Your task to perform on an android device: change notification settings in the gmail app Image 0: 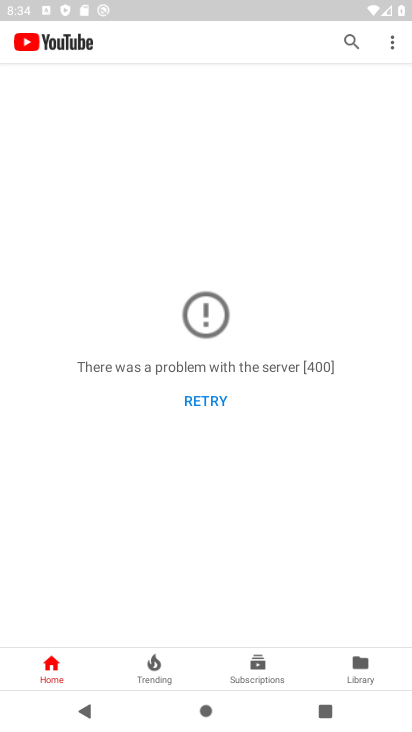
Step 0: press home button
Your task to perform on an android device: change notification settings in the gmail app Image 1: 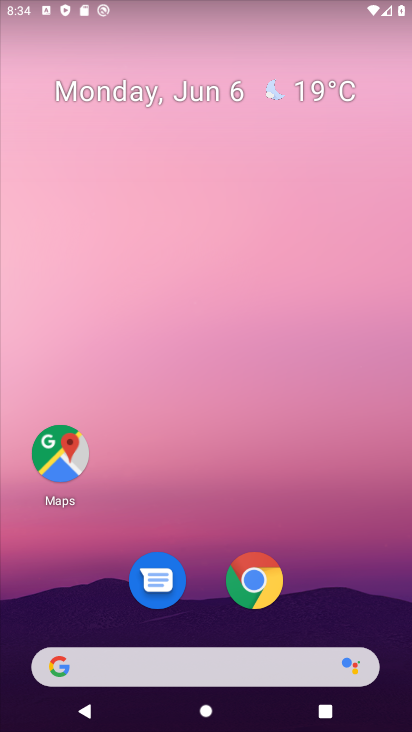
Step 1: drag from (281, 696) to (368, 71)
Your task to perform on an android device: change notification settings in the gmail app Image 2: 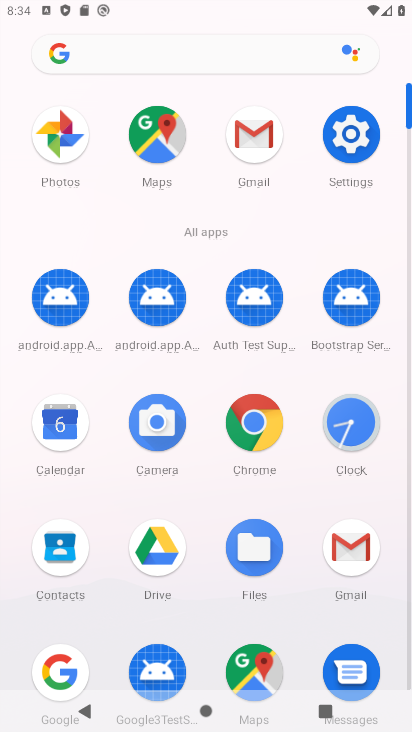
Step 2: click (361, 532)
Your task to perform on an android device: change notification settings in the gmail app Image 3: 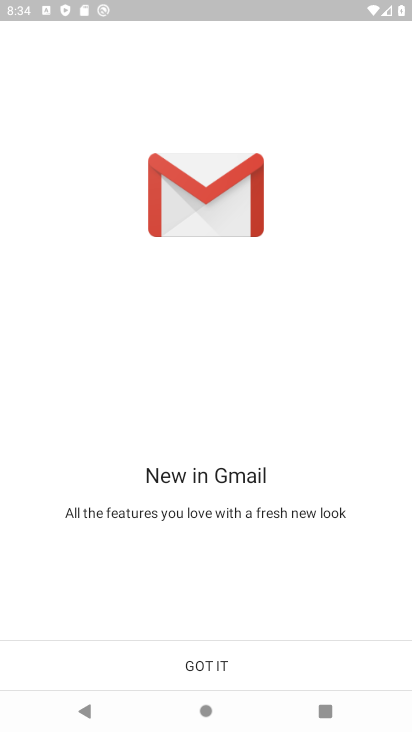
Step 3: click (280, 664)
Your task to perform on an android device: change notification settings in the gmail app Image 4: 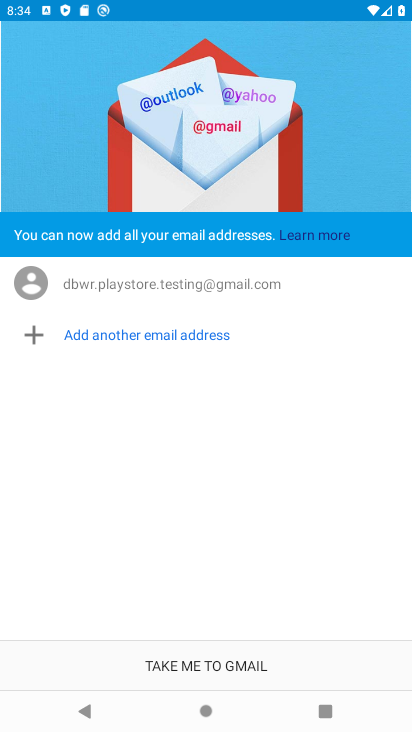
Step 4: click (280, 664)
Your task to perform on an android device: change notification settings in the gmail app Image 5: 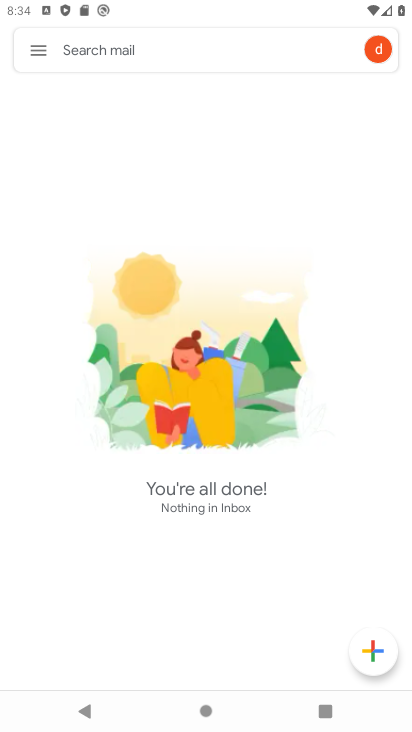
Step 5: click (41, 50)
Your task to perform on an android device: change notification settings in the gmail app Image 6: 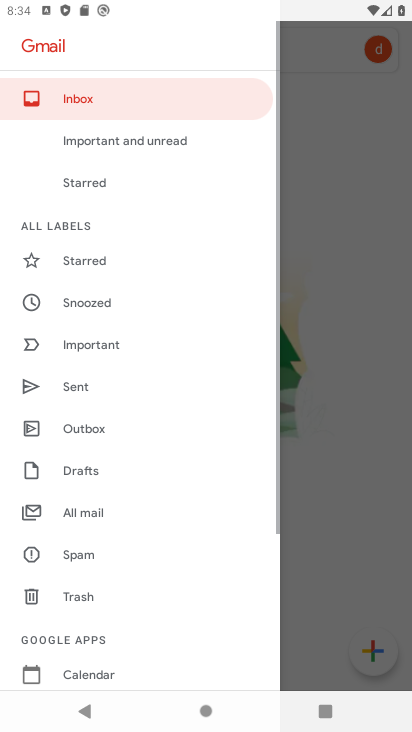
Step 6: drag from (96, 628) to (112, 131)
Your task to perform on an android device: change notification settings in the gmail app Image 7: 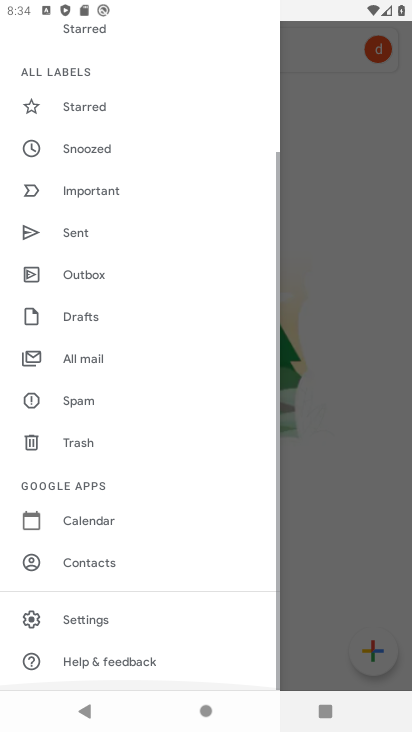
Step 7: click (88, 618)
Your task to perform on an android device: change notification settings in the gmail app Image 8: 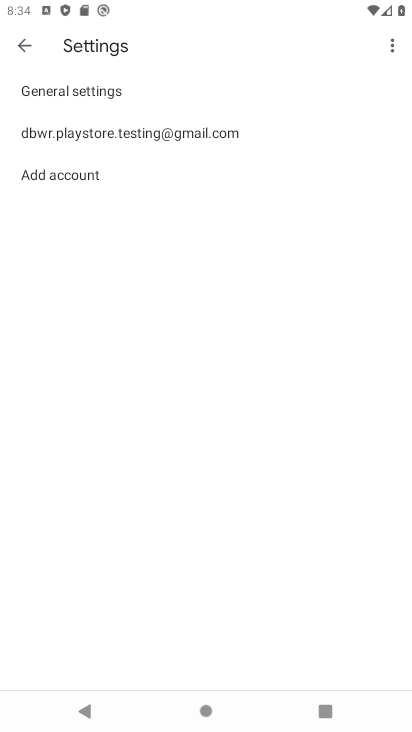
Step 8: click (201, 124)
Your task to perform on an android device: change notification settings in the gmail app Image 9: 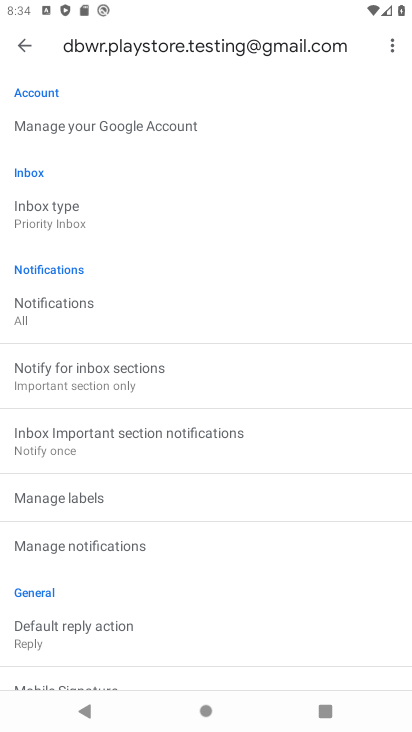
Step 9: click (168, 533)
Your task to perform on an android device: change notification settings in the gmail app Image 10: 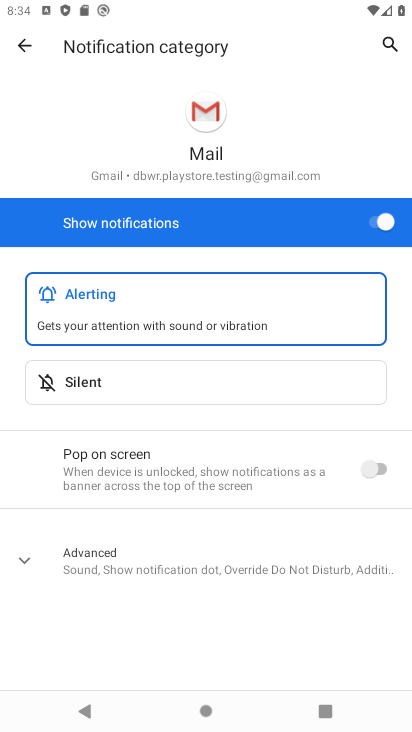
Step 10: click (131, 562)
Your task to perform on an android device: change notification settings in the gmail app Image 11: 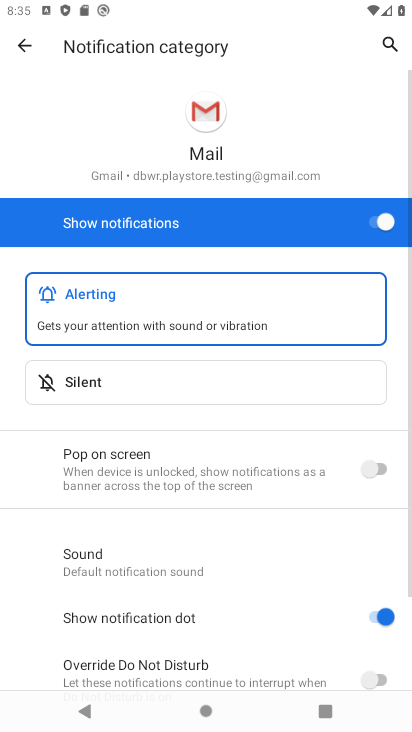
Step 11: drag from (134, 618) to (198, 294)
Your task to perform on an android device: change notification settings in the gmail app Image 12: 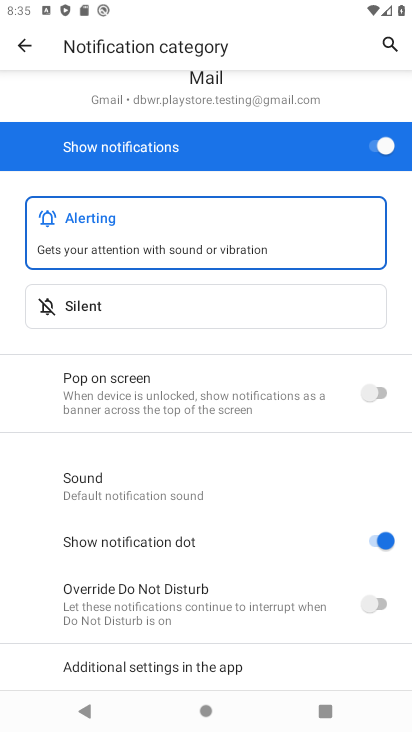
Step 12: drag from (166, 450) to (170, 691)
Your task to perform on an android device: change notification settings in the gmail app Image 13: 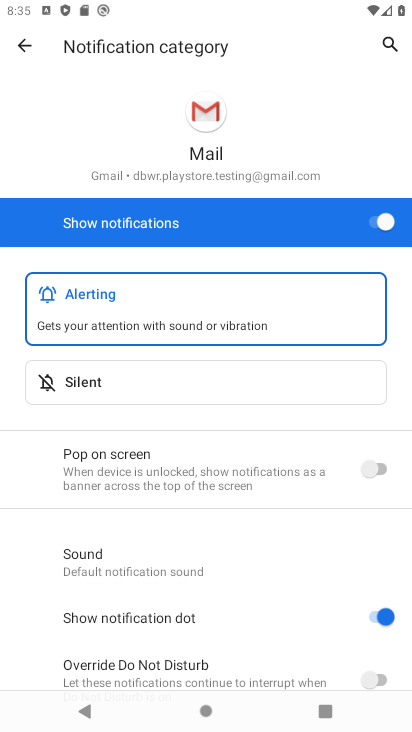
Step 13: press back button
Your task to perform on an android device: change notification settings in the gmail app Image 14: 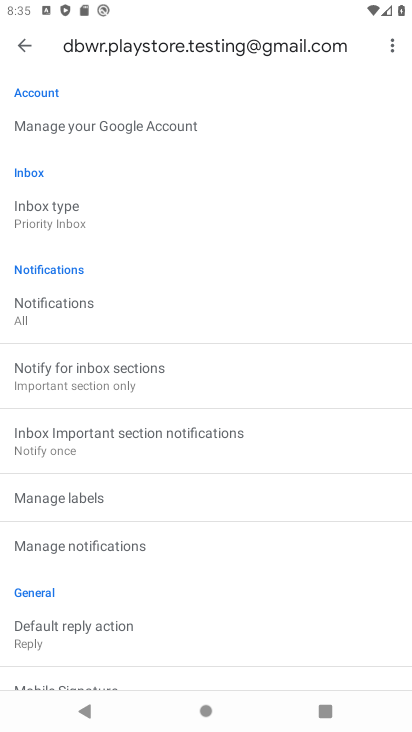
Step 14: click (165, 543)
Your task to perform on an android device: change notification settings in the gmail app Image 15: 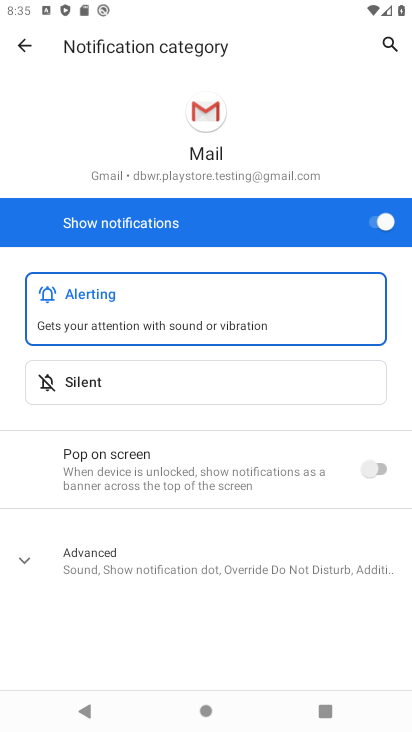
Step 15: click (378, 223)
Your task to perform on an android device: change notification settings in the gmail app Image 16: 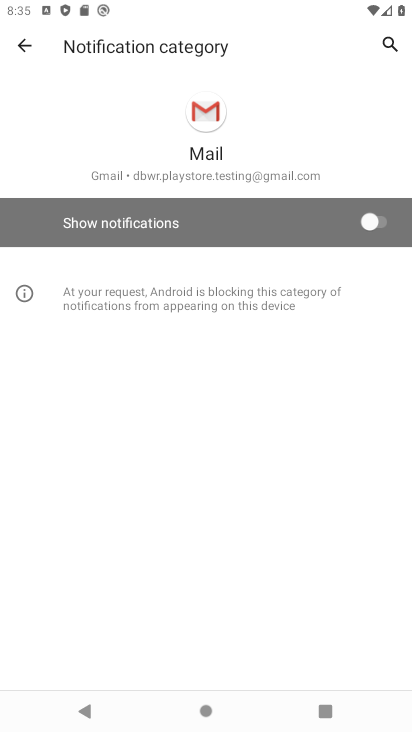
Step 16: task complete